Your task to perform on an android device: empty trash in google photos Image 0: 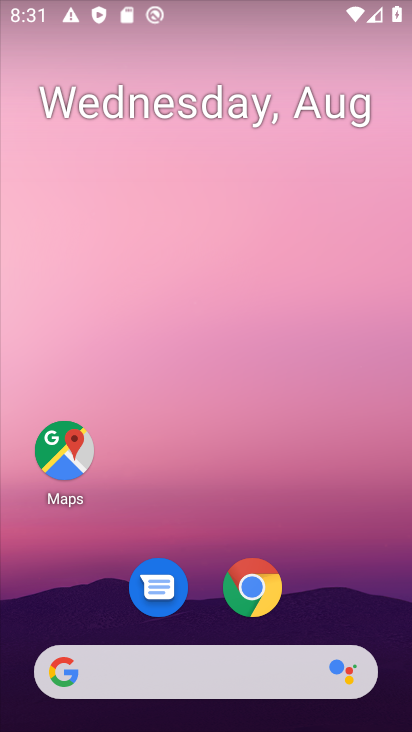
Step 0: drag from (267, 689) to (122, 294)
Your task to perform on an android device: empty trash in google photos Image 1: 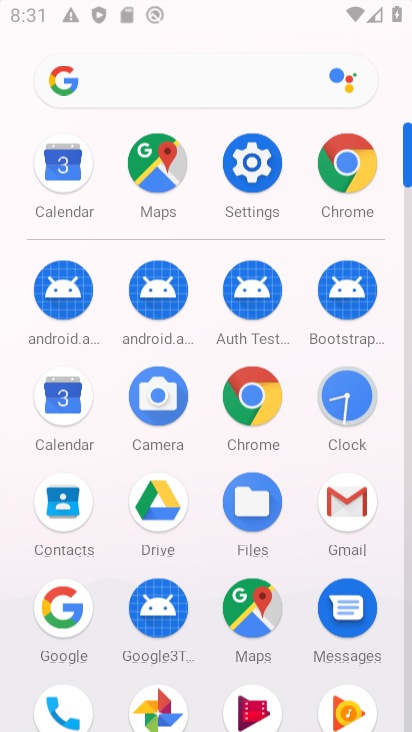
Step 1: drag from (271, 643) to (260, 311)
Your task to perform on an android device: empty trash in google photos Image 2: 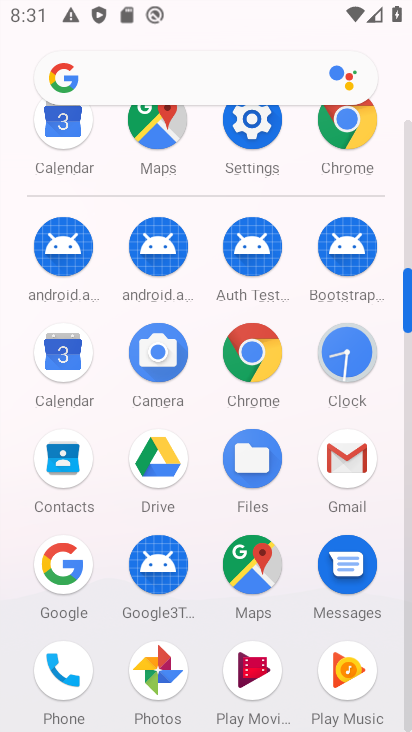
Step 2: click (158, 673)
Your task to perform on an android device: empty trash in google photos Image 3: 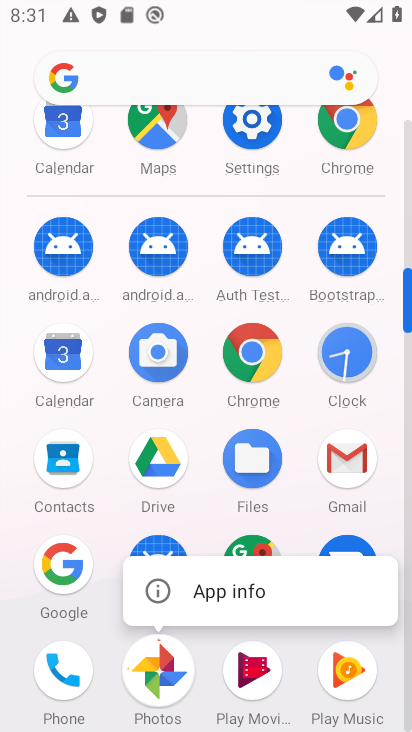
Step 3: click (158, 673)
Your task to perform on an android device: empty trash in google photos Image 4: 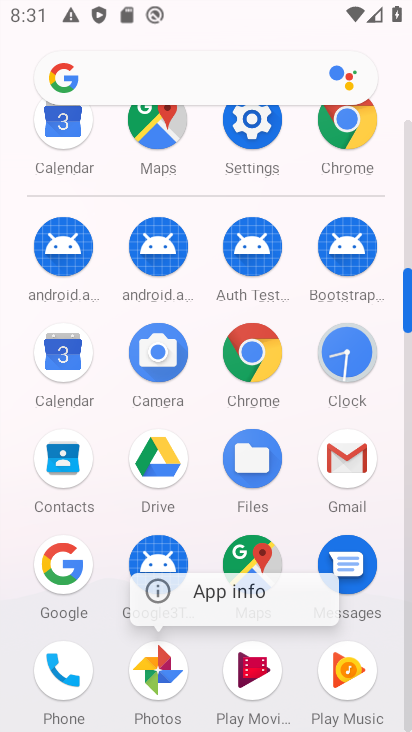
Step 4: click (158, 673)
Your task to perform on an android device: empty trash in google photos Image 5: 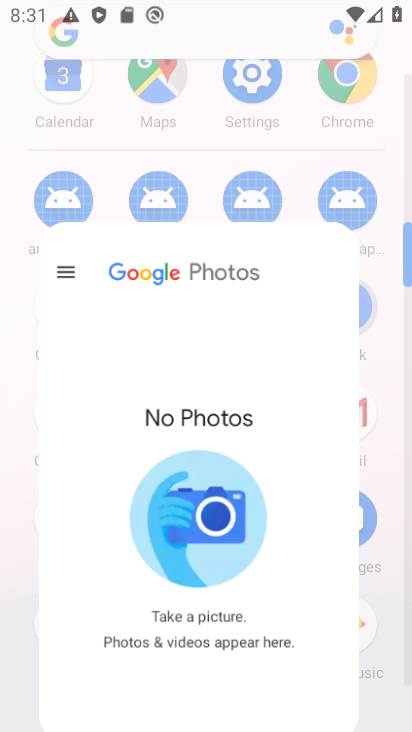
Step 5: click (159, 672)
Your task to perform on an android device: empty trash in google photos Image 6: 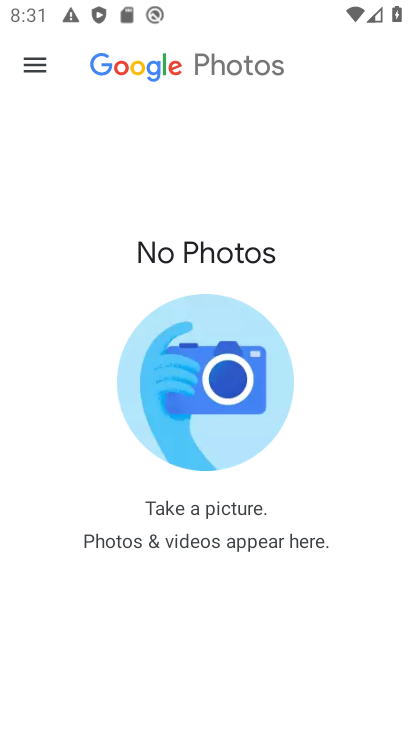
Step 6: click (35, 67)
Your task to perform on an android device: empty trash in google photos Image 7: 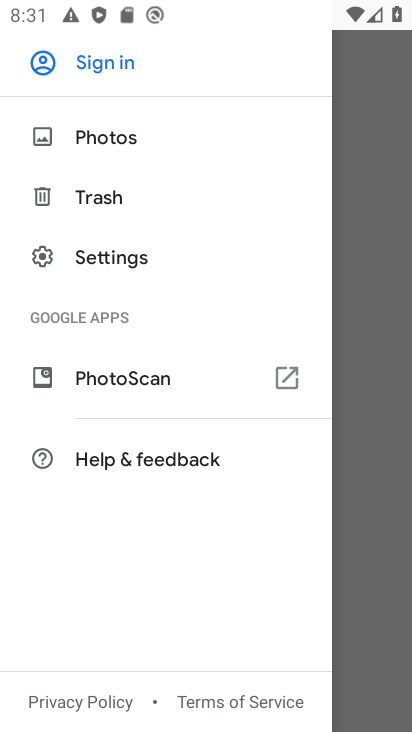
Step 7: click (109, 196)
Your task to perform on an android device: empty trash in google photos Image 8: 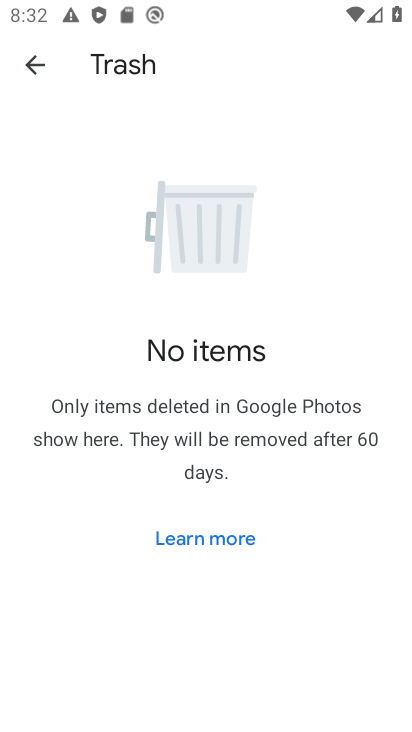
Step 8: task complete